Your task to perform on an android device: turn on sleep mode Image 0: 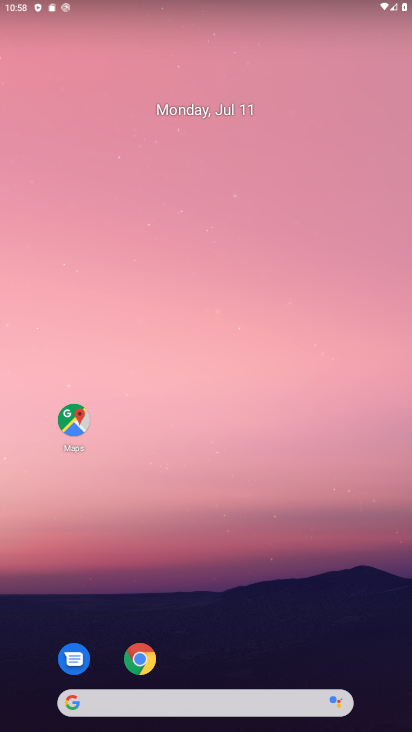
Step 0: drag from (229, 678) to (239, 0)
Your task to perform on an android device: turn on sleep mode Image 1: 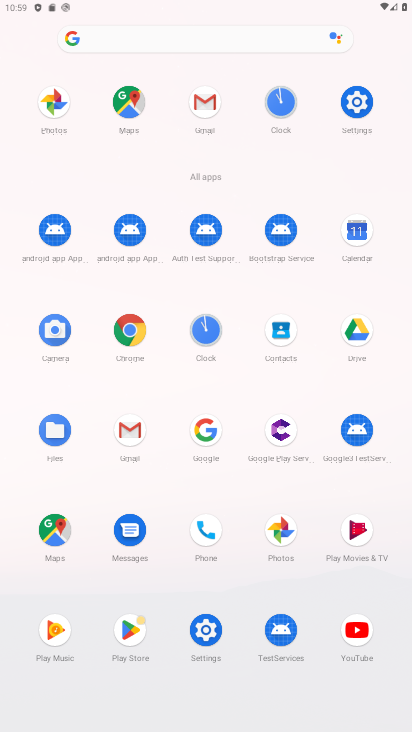
Step 1: click (362, 97)
Your task to perform on an android device: turn on sleep mode Image 2: 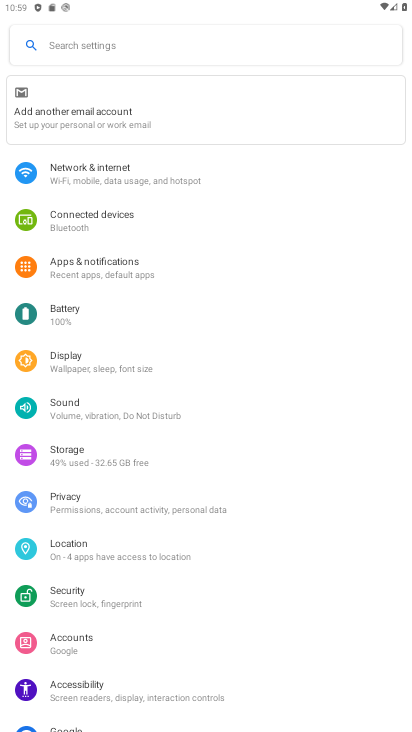
Step 2: drag from (153, 608) to (267, 141)
Your task to perform on an android device: turn on sleep mode Image 3: 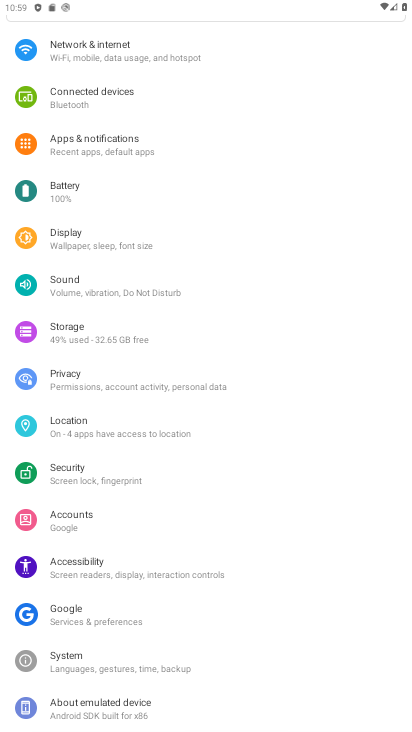
Step 3: drag from (263, 209) to (211, 672)
Your task to perform on an android device: turn on sleep mode Image 4: 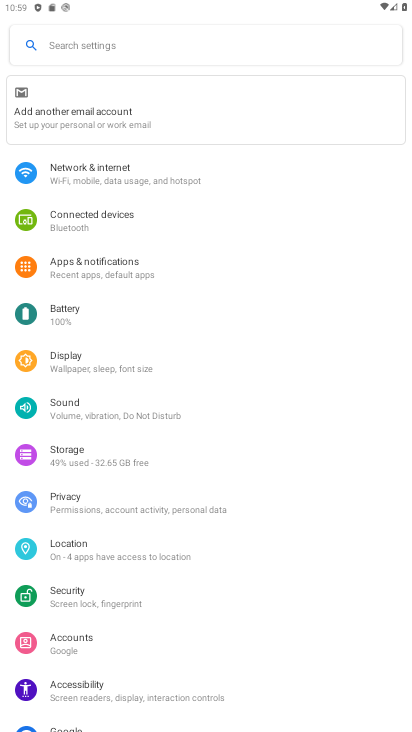
Step 4: click (83, 359)
Your task to perform on an android device: turn on sleep mode Image 5: 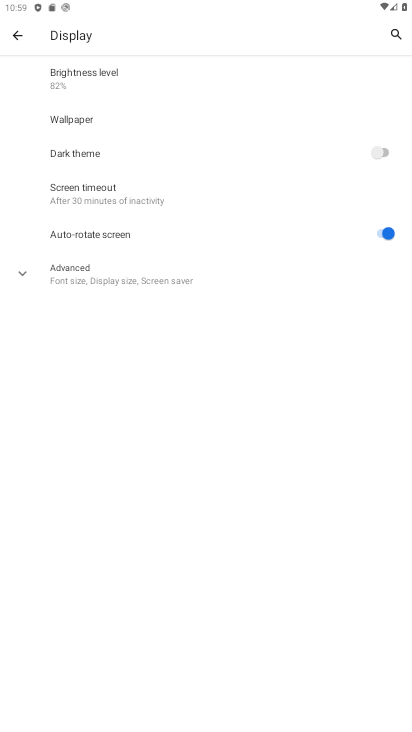
Step 5: click (90, 193)
Your task to perform on an android device: turn on sleep mode Image 6: 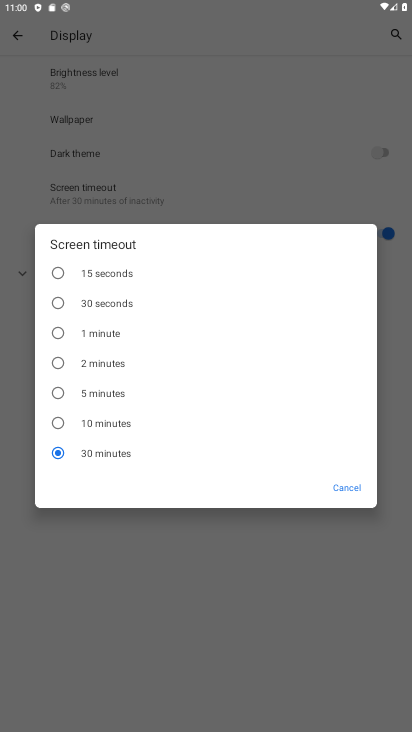
Step 6: task complete